Your task to perform on an android device: turn on bluetooth scan Image 0: 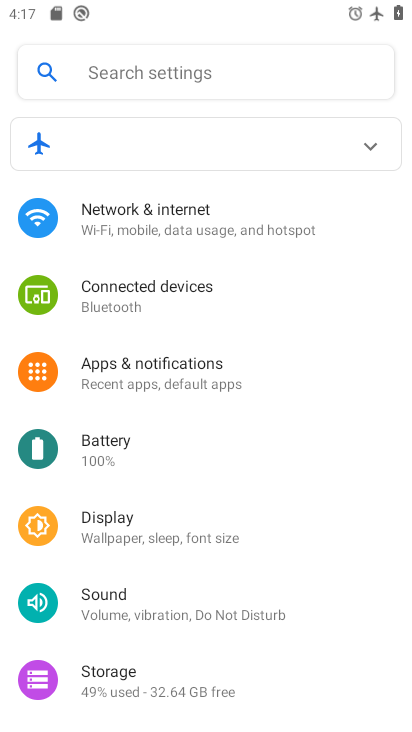
Step 0: drag from (203, 658) to (233, 206)
Your task to perform on an android device: turn on bluetooth scan Image 1: 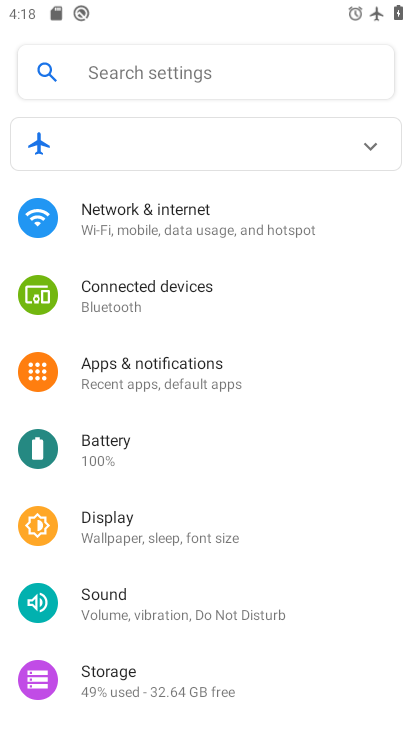
Step 1: drag from (213, 668) to (201, 377)
Your task to perform on an android device: turn on bluetooth scan Image 2: 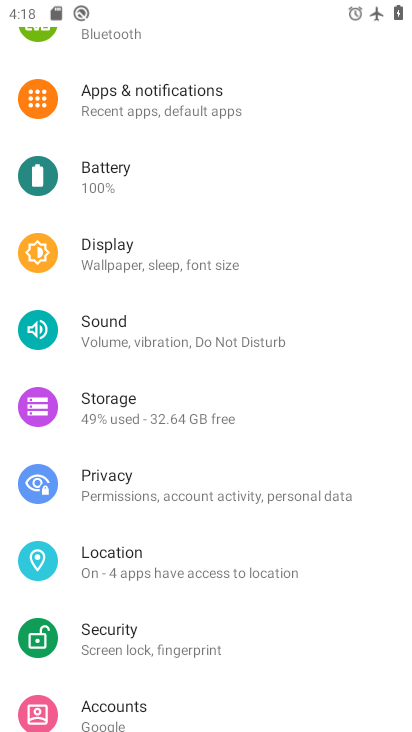
Step 2: click (161, 559)
Your task to perform on an android device: turn on bluetooth scan Image 3: 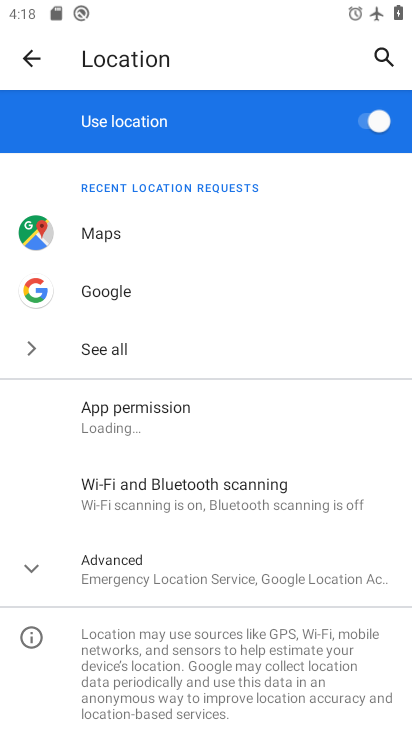
Step 3: click (259, 495)
Your task to perform on an android device: turn on bluetooth scan Image 4: 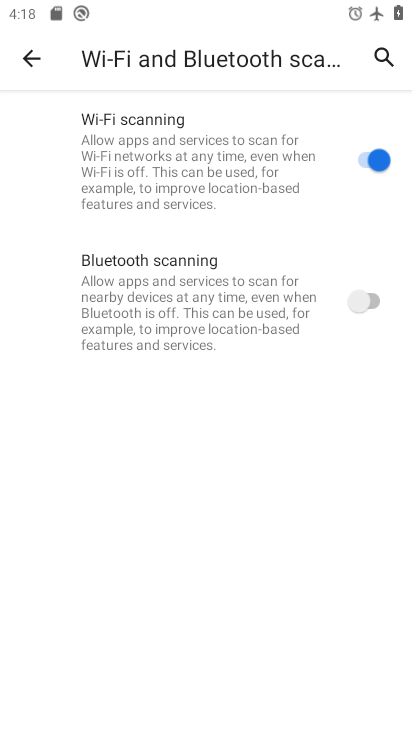
Step 4: click (377, 293)
Your task to perform on an android device: turn on bluetooth scan Image 5: 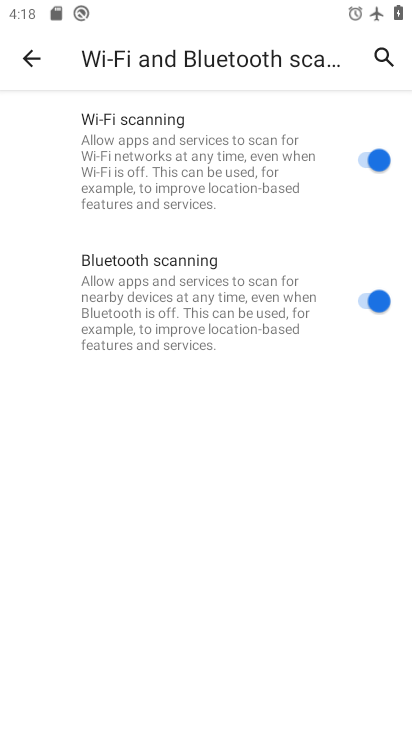
Step 5: task complete